Your task to perform on an android device: Open maps Image 0: 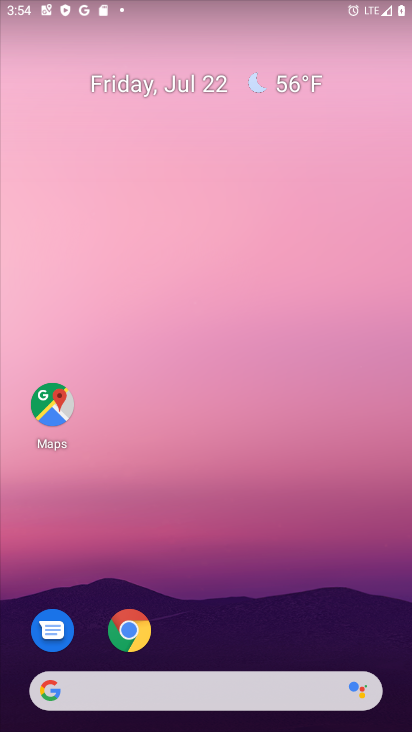
Step 0: click (29, 420)
Your task to perform on an android device: Open maps Image 1: 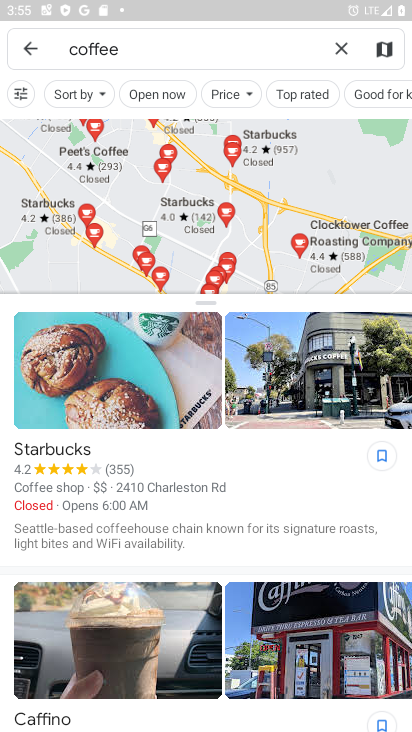
Step 1: task complete